Your task to perform on an android device: delete location history Image 0: 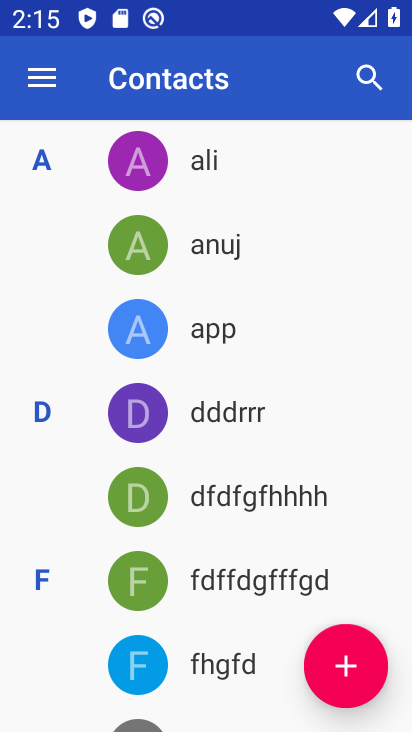
Step 0: press back button
Your task to perform on an android device: delete location history Image 1: 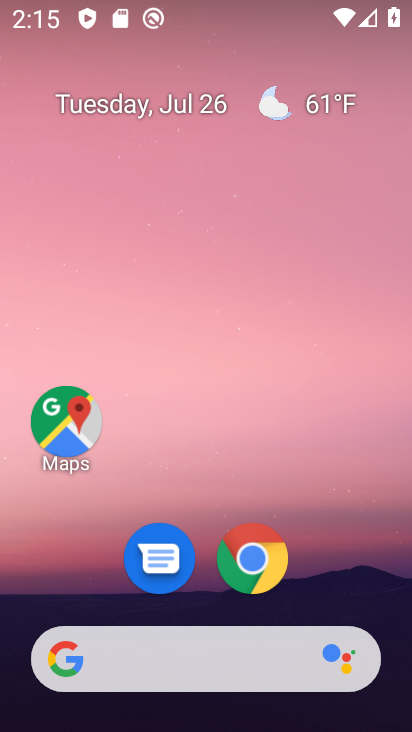
Step 1: click (65, 424)
Your task to perform on an android device: delete location history Image 2: 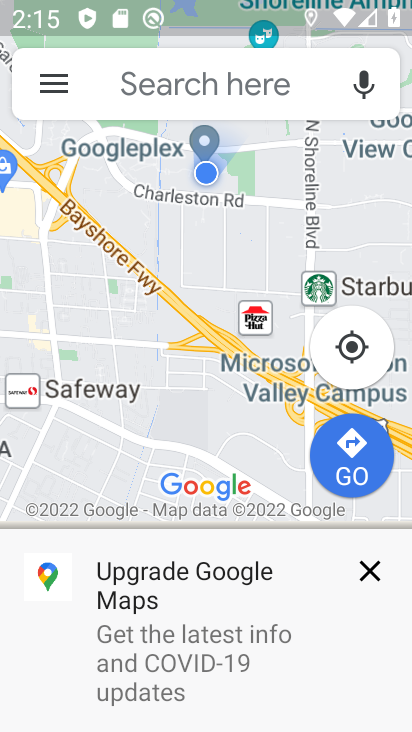
Step 2: click (35, 72)
Your task to perform on an android device: delete location history Image 3: 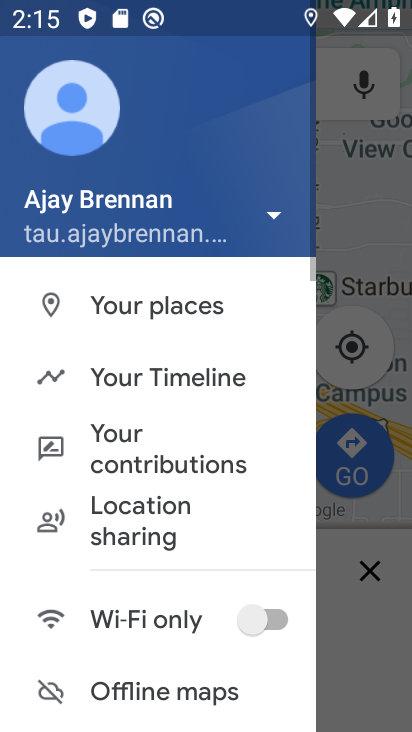
Step 3: click (155, 391)
Your task to perform on an android device: delete location history Image 4: 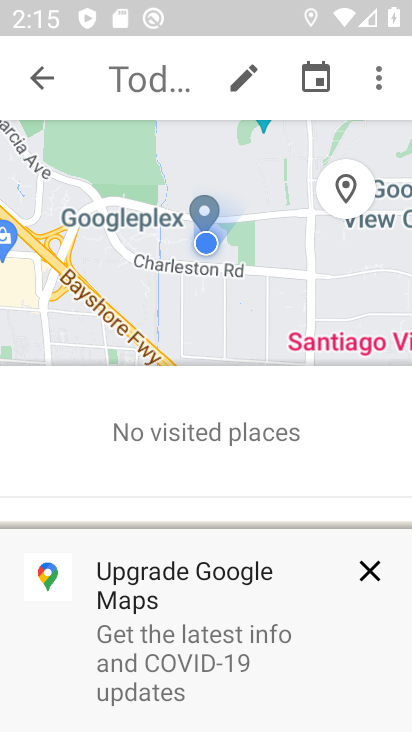
Step 4: click (383, 71)
Your task to perform on an android device: delete location history Image 5: 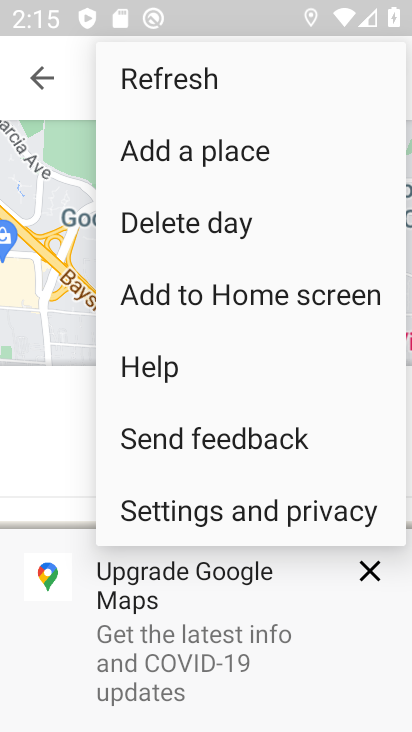
Step 5: click (228, 508)
Your task to perform on an android device: delete location history Image 6: 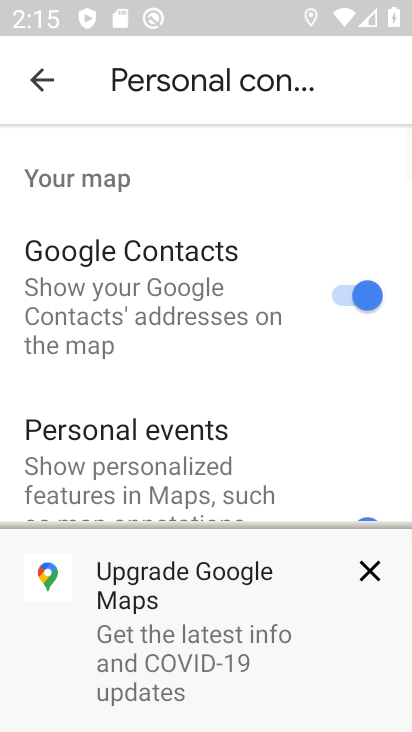
Step 6: click (364, 562)
Your task to perform on an android device: delete location history Image 7: 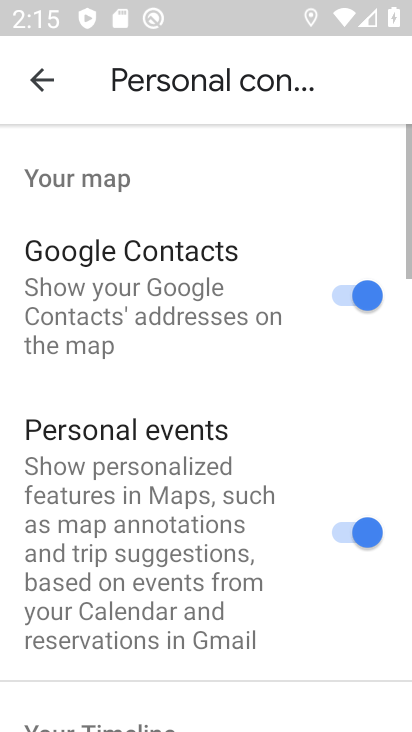
Step 7: drag from (177, 568) to (270, 5)
Your task to perform on an android device: delete location history Image 8: 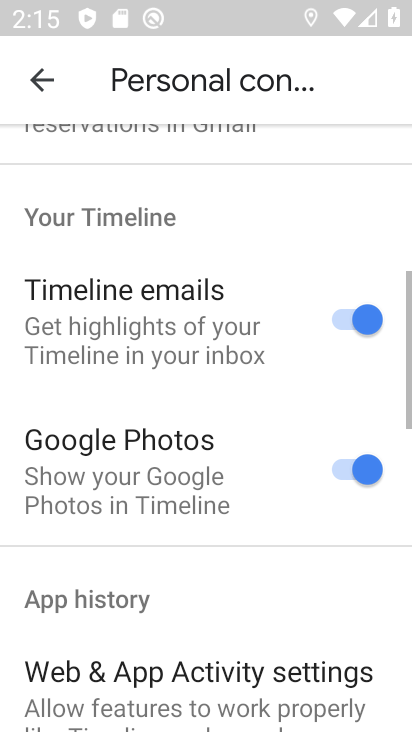
Step 8: drag from (161, 632) to (331, 36)
Your task to perform on an android device: delete location history Image 9: 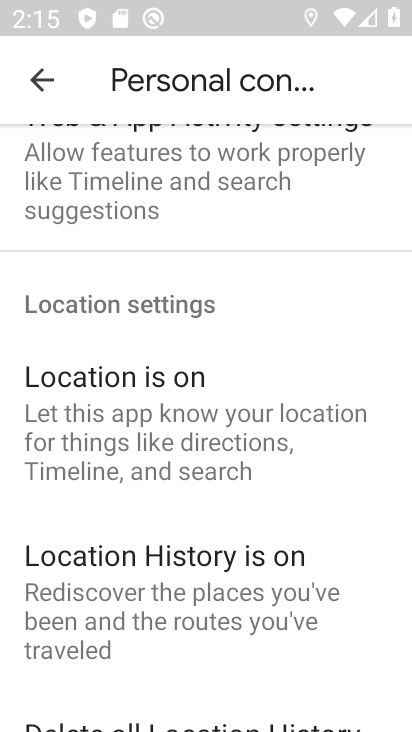
Step 9: drag from (185, 666) to (340, 120)
Your task to perform on an android device: delete location history Image 10: 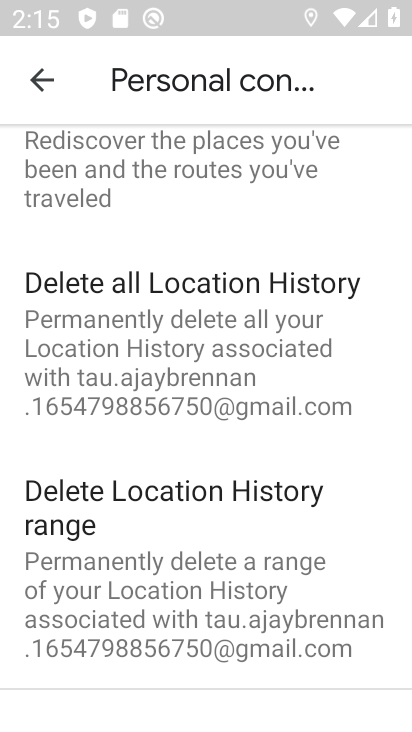
Step 10: click (199, 351)
Your task to perform on an android device: delete location history Image 11: 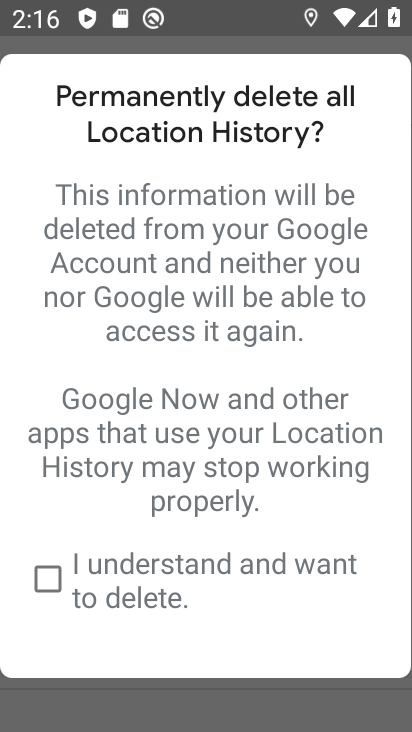
Step 11: click (52, 582)
Your task to perform on an android device: delete location history Image 12: 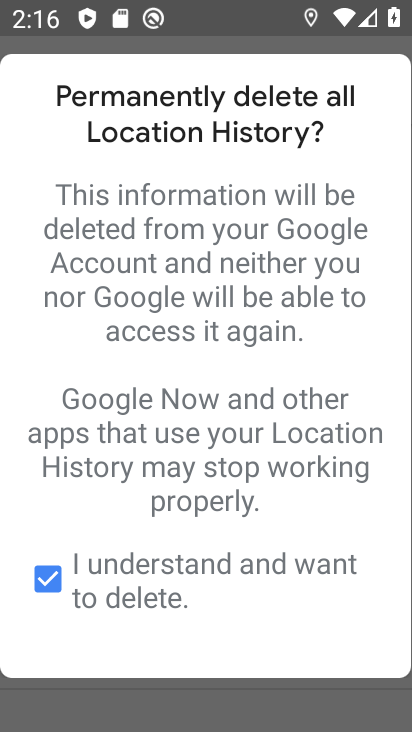
Step 12: task complete